Your task to perform on an android device: Open Wikipedia Image 0: 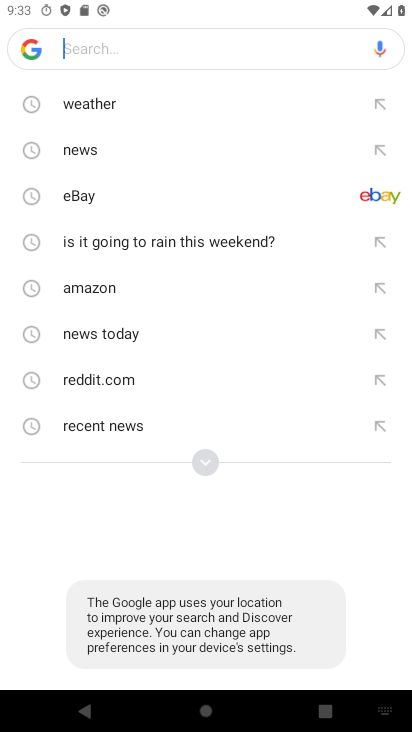
Step 0: press back button
Your task to perform on an android device: Open Wikipedia Image 1: 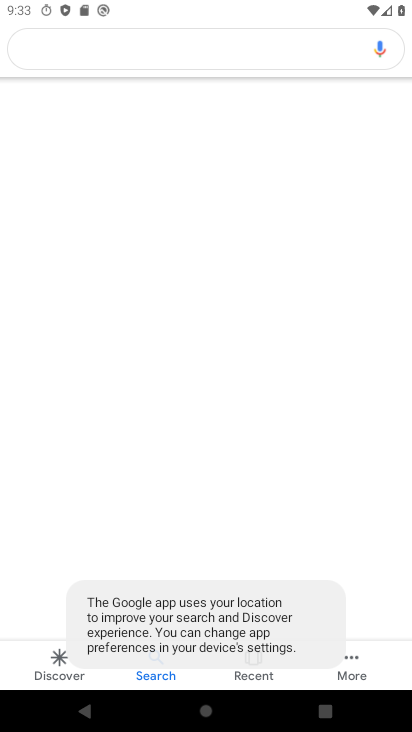
Step 1: press back button
Your task to perform on an android device: Open Wikipedia Image 2: 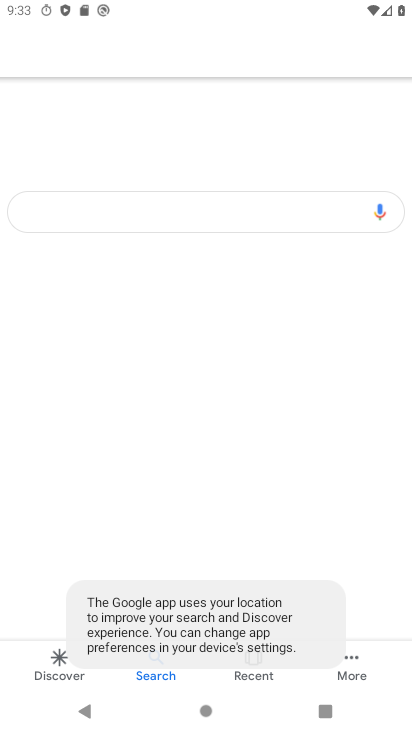
Step 2: press back button
Your task to perform on an android device: Open Wikipedia Image 3: 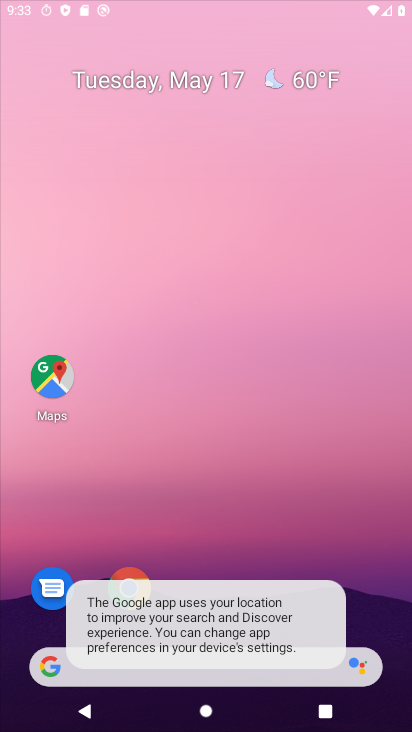
Step 3: press back button
Your task to perform on an android device: Open Wikipedia Image 4: 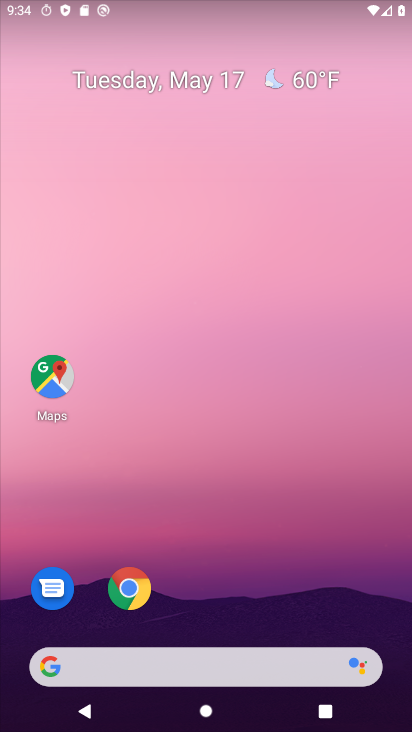
Step 4: drag from (275, 658) to (201, 227)
Your task to perform on an android device: Open Wikipedia Image 5: 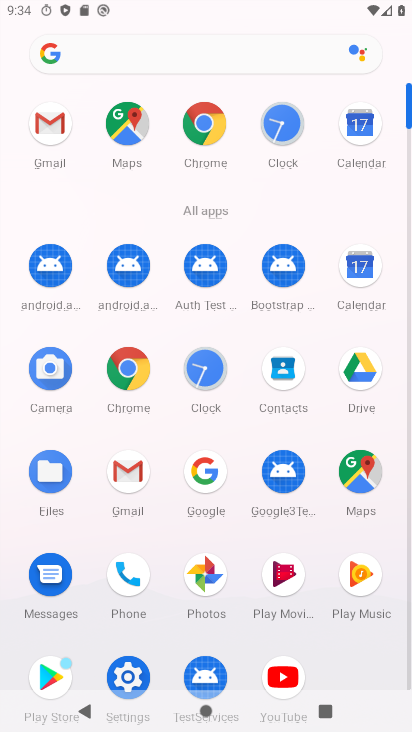
Step 5: click (200, 122)
Your task to perform on an android device: Open Wikipedia Image 6: 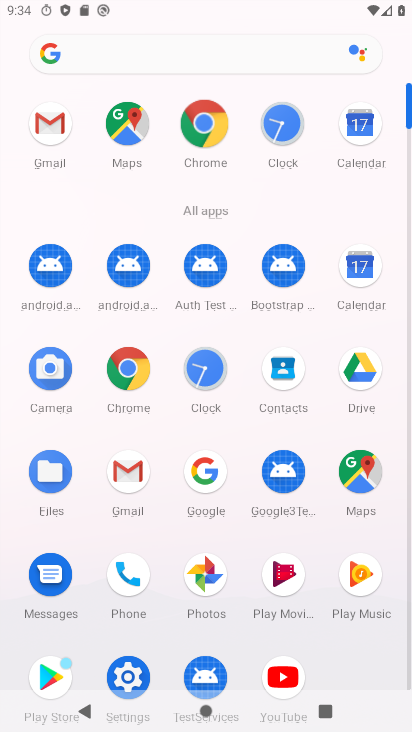
Step 6: click (200, 120)
Your task to perform on an android device: Open Wikipedia Image 7: 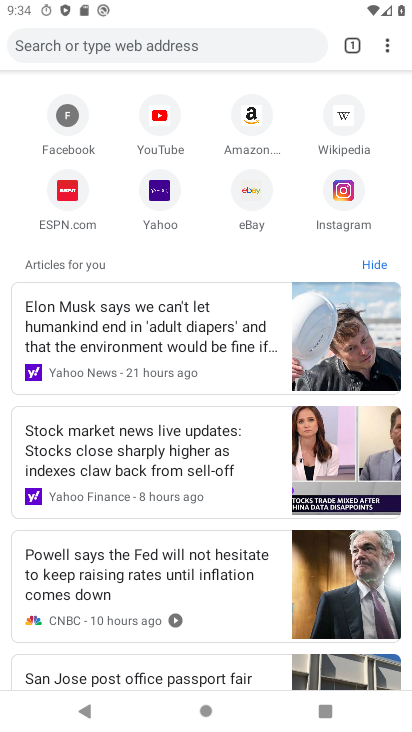
Step 7: click (200, 120)
Your task to perform on an android device: Open Wikipedia Image 8: 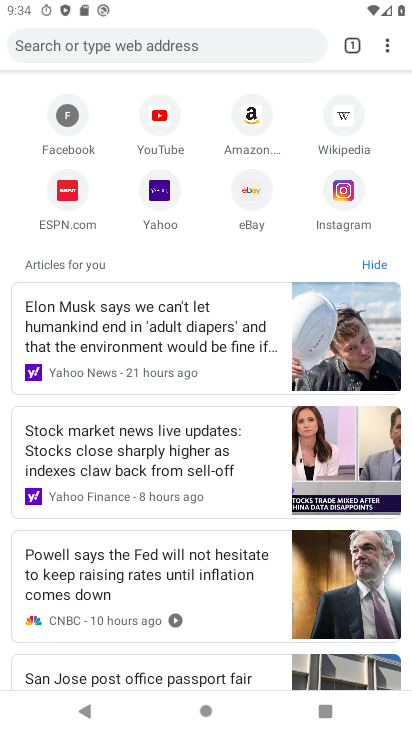
Step 8: click (200, 119)
Your task to perform on an android device: Open Wikipedia Image 9: 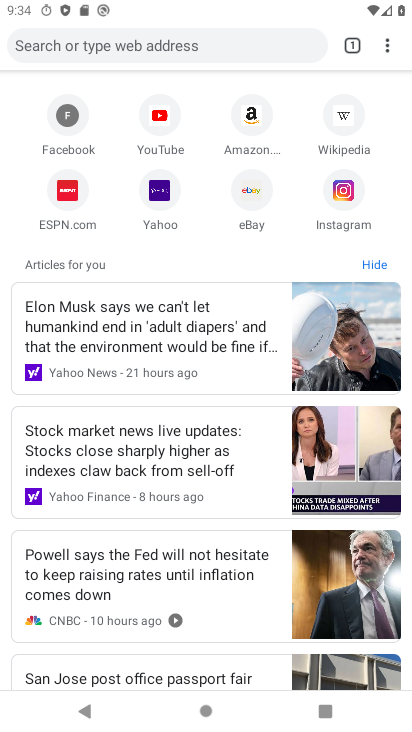
Step 9: click (200, 118)
Your task to perform on an android device: Open Wikipedia Image 10: 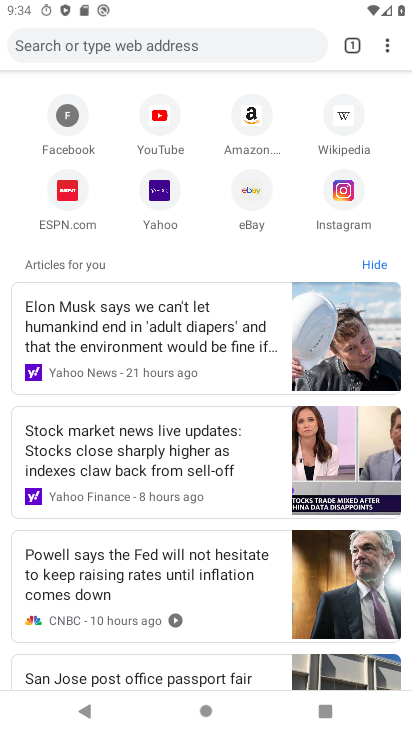
Step 10: click (341, 118)
Your task to perform on an android device: Open Wikipedia Image 11: 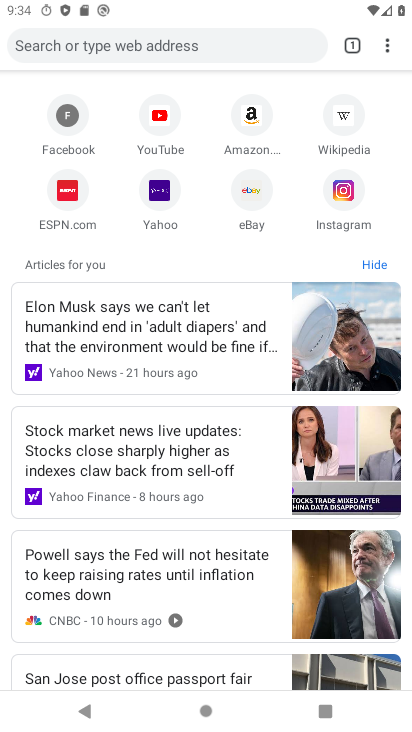
Step 11: click (343, 115)
Your task to perform on an android device: Open Wikipedia Image 12: 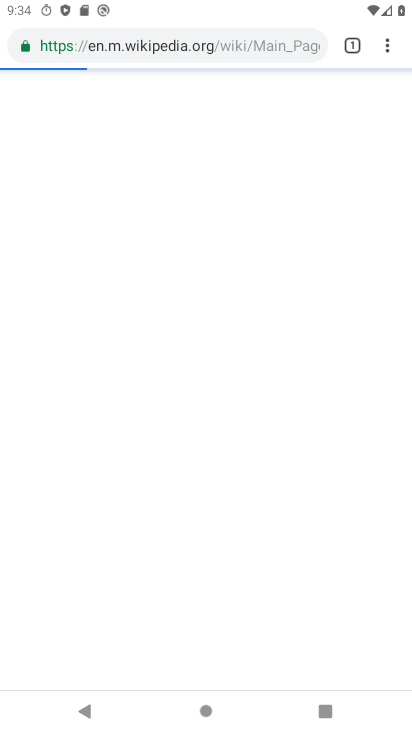
Step 12: click (343, 112)
Your task to perform on an android device: Open Wikipedia Image 13: 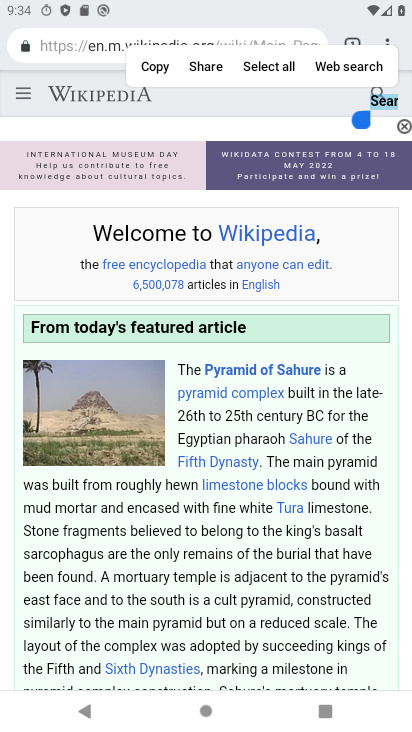
Step 13: task complete